Your task to perform on an android device: toggle show notifications on the lock screen Image 0: 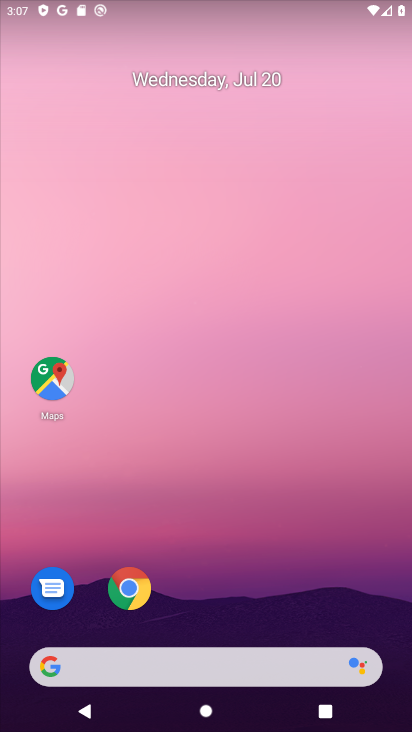
Step 0: click (268, 223)
Your task to perform on an android device: toggle show notifications on the lock screen Image 1: 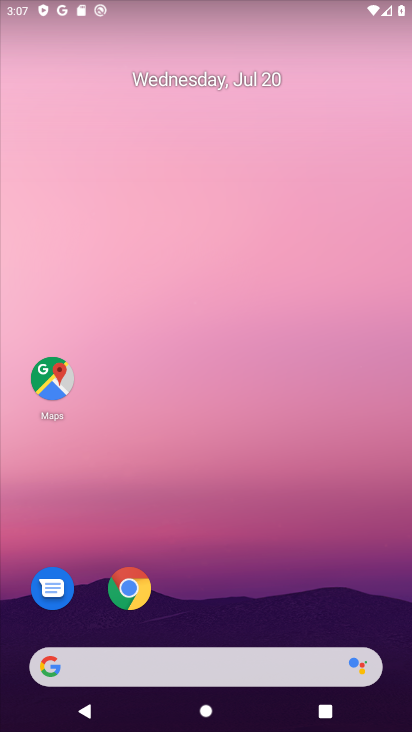
Step 1: drag from (255, 546) to (237, 119)
Your task to perform on an android device: toggle show notifications on the lock screen Image 2: 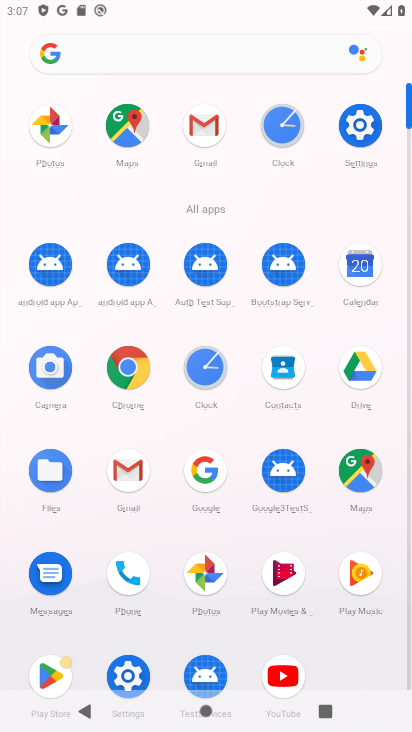
Step 2: click (339, 135)
Your task to perform on an android device: toggle show notifications on the lock screen Image 3: 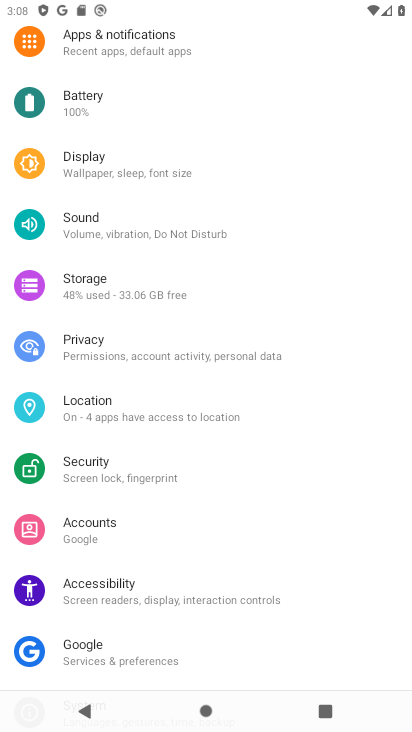
Step 3: click (136, 48)
Your task to perform on an android device: toggle show notifications on the lock screen Image 4: 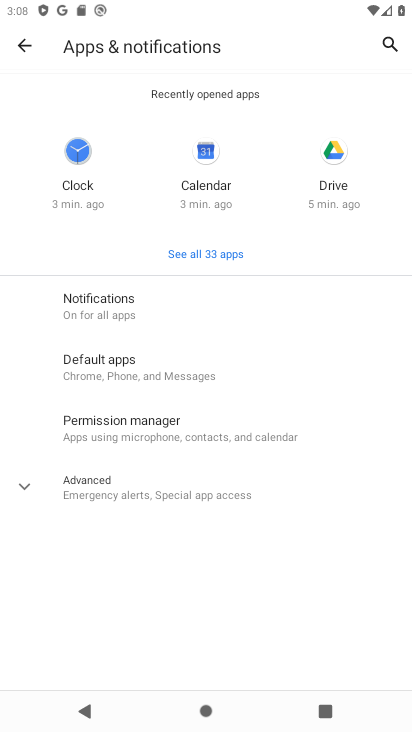
Step 4: click (111, 311)
Your task to perform on an android device: toggle show notifications on the lock screen Image 5: 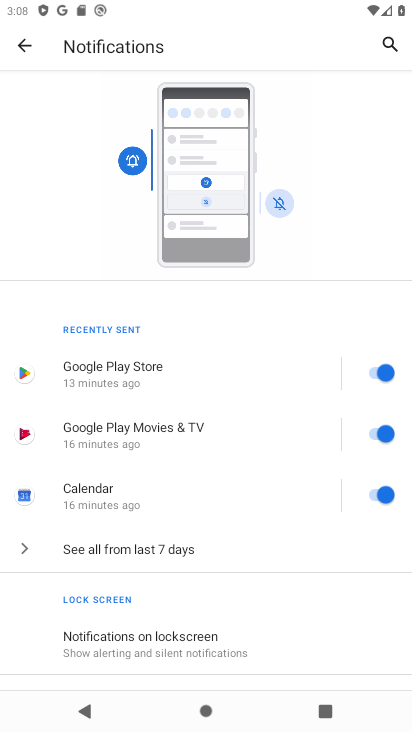
Step 5: drag from (108, 636) to (186, 62)
Your task to perform on an android device: toggle show notifications on the lock screen Image 6: 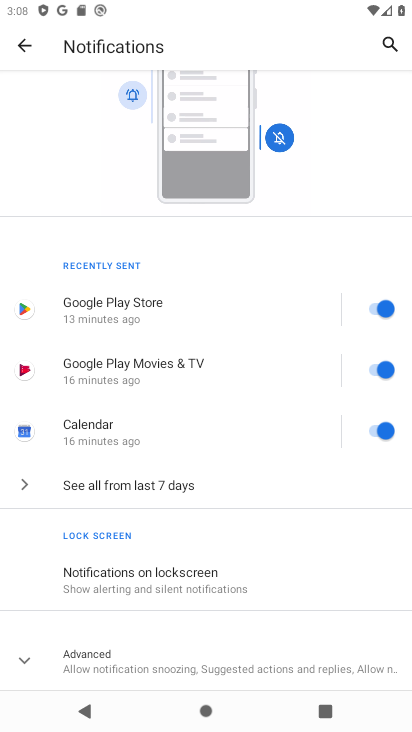
Step 6: click (258, 581)
Your task to perform on an android device: toggle show notifications on the lock screen Image 7: 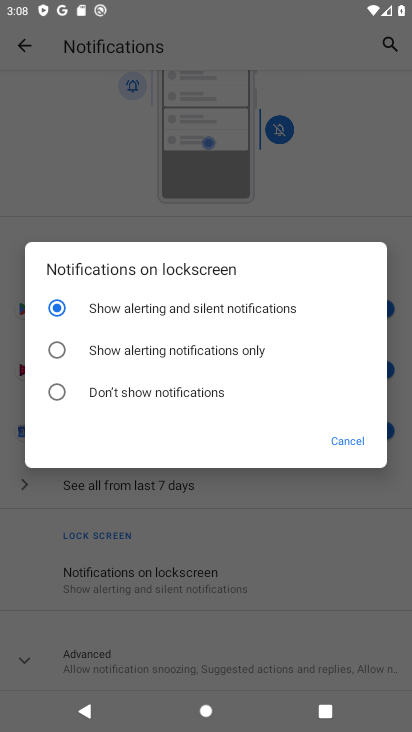
Step 7: task complete